Your task to perform on an android device: Go to battery settings Image 0: 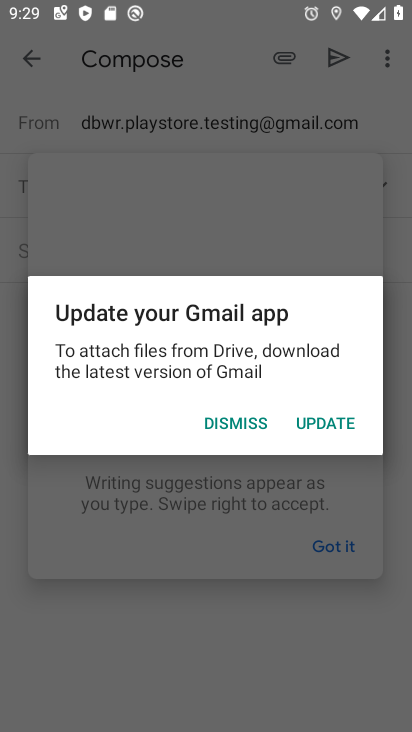
Step 0: press home button
Your task to perform on an android device: Go to battery settings Image 1: 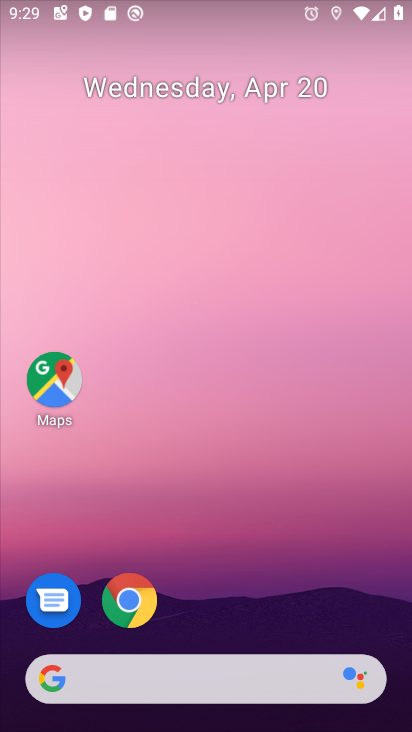
Step 1: drag from (200, 639) to (188, 32)
Your task to perform on an android device: Go to battery settings Image 2: 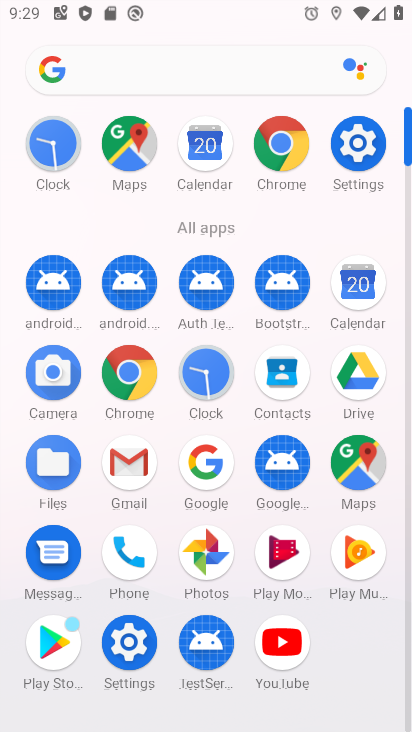
Step 2: click (360, 143)
Your task to perform on an android device: Go to battery settings Image 3: 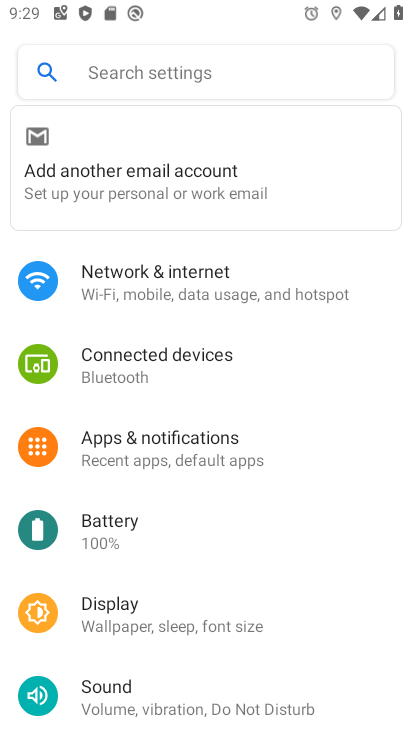
Step 3: click (116, 543)
Your task to perform on an android device: Go to battery settings Image 4: 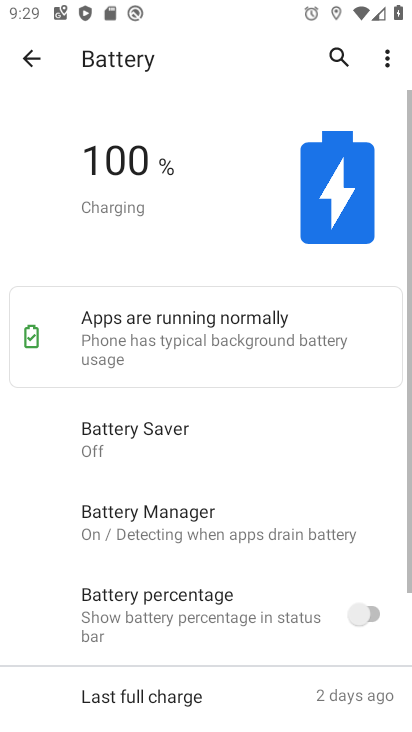
Step 4: task complete